Your task to perform on an android device: Toggle the flashlight Image 0: 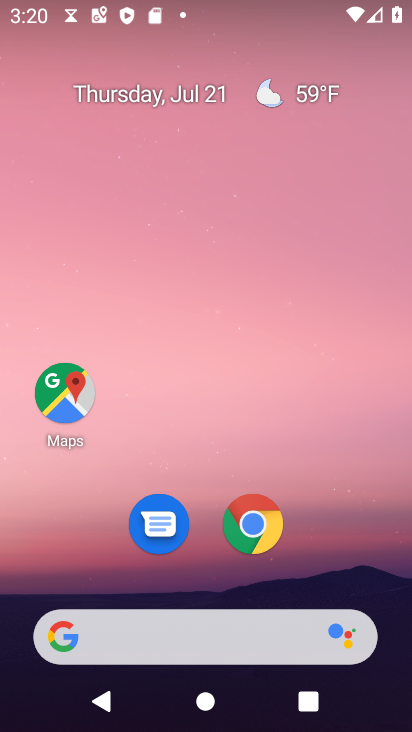
Step 0: press home button
Your task to perform on an android device: Toggle the flashlight Image 1: 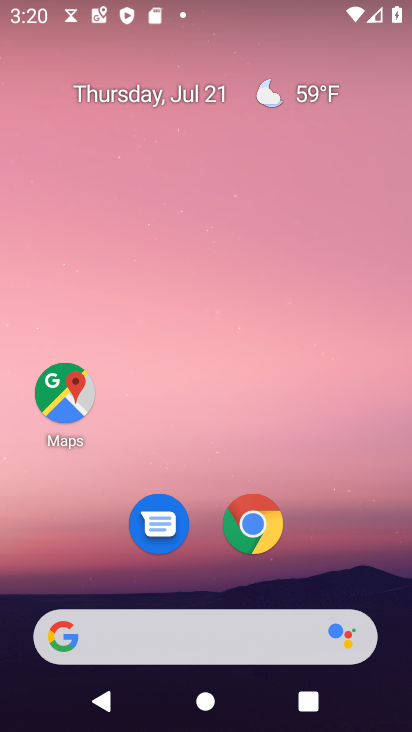
Step 1: task complete